Your task to perform on an android device: open a new tab in the chrome app Image 0: 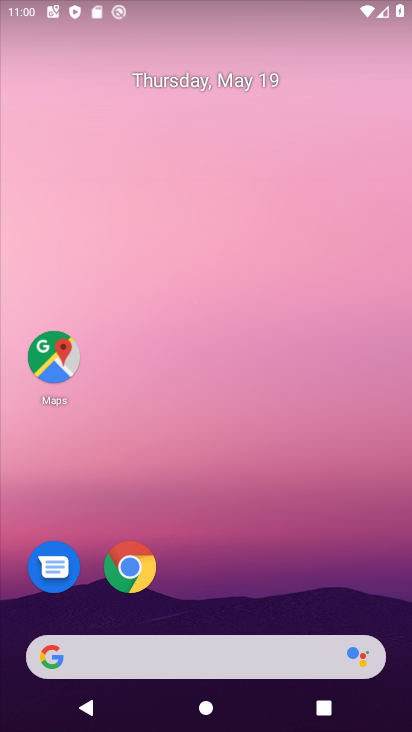
Step 0: click (134, 569)
Your task to perform on an android device: open a new tab in the chrome app Image 1: 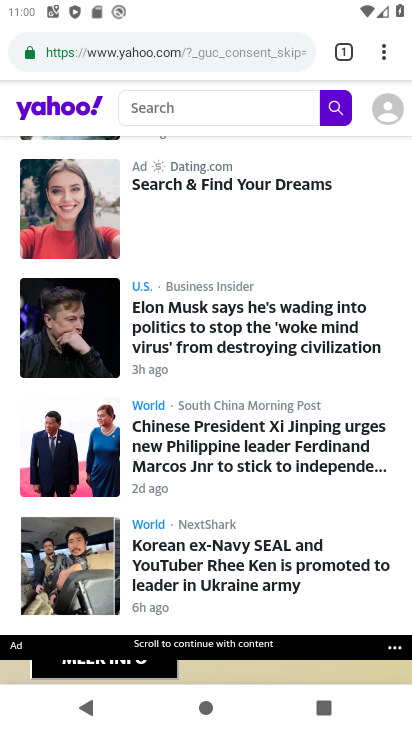
Step 1: click (380, 57)
Your task to perform on an android device: open a new tab in the chrome app Image 2: 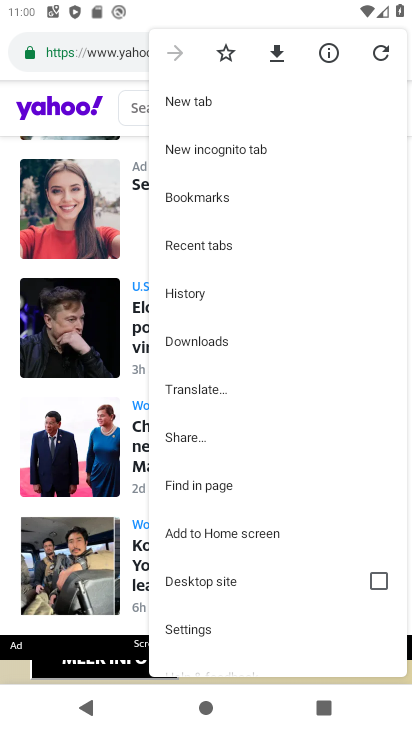
Step 2: click (172, 93)
Your task to perform on an android device: open a new tab in the chrome app Image 3: 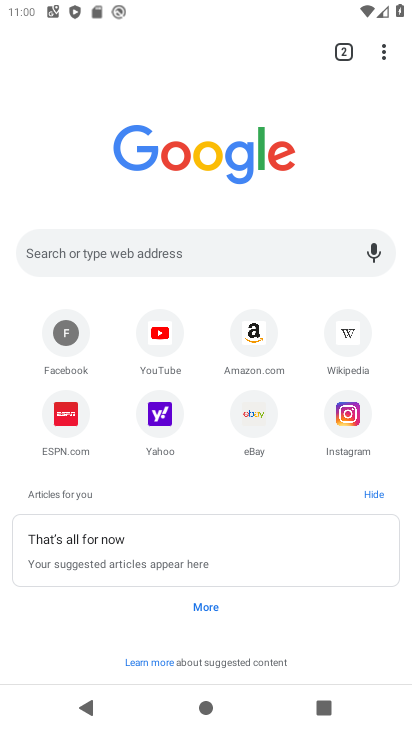
Step 3: task complete